Your task to perform on an android device: Open wifi settings Image 0: 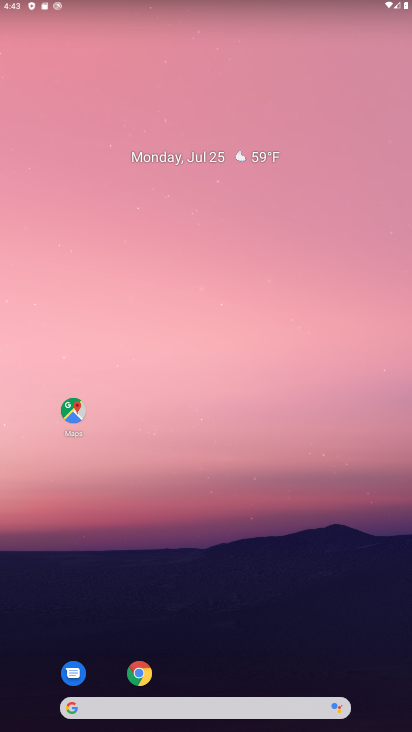
Step 0: drag from (291, 665) to (219, 125)
Your task to perform on an android device: Open wifi settings Image 1: 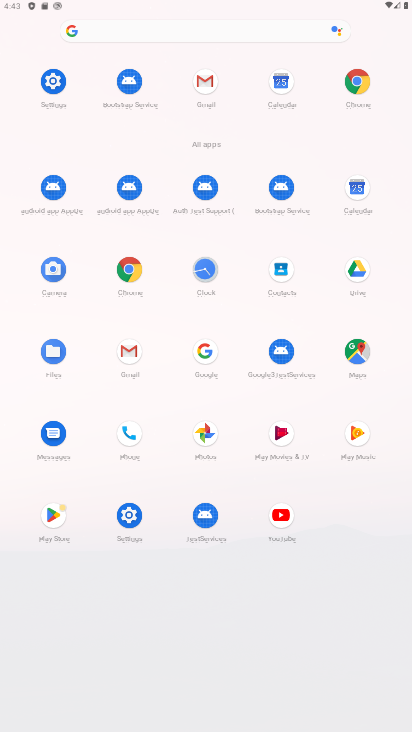
Step 1: click (116, 521)
Your task to perform on an android device: Open wifi settings Image 2: 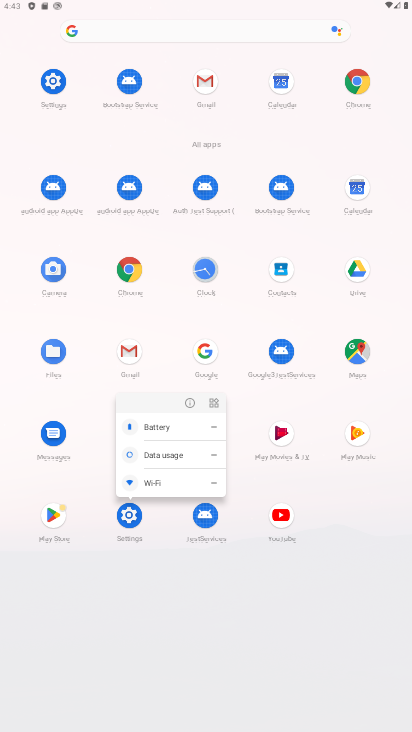
Step 2: click (137, 510)
Your task to perform on an android device: Open wifi settings Image 3: 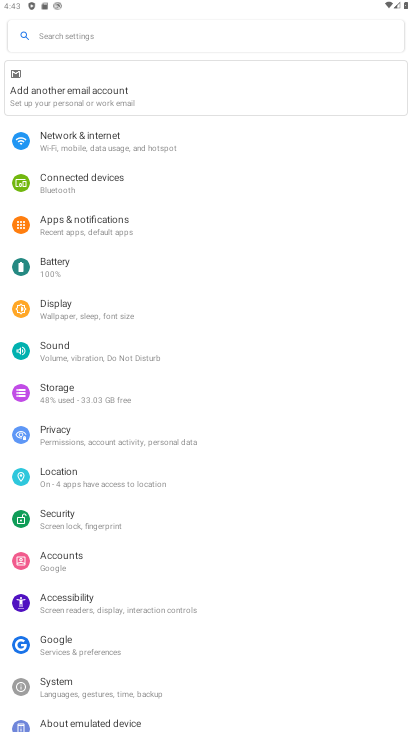
Step 3: click (74, 144)
Your task to perform on an android device: Open wifi settings Image 4: 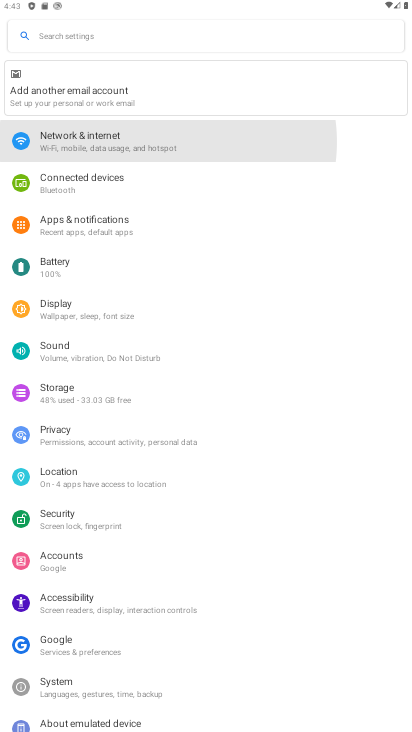
Step 4: click (84, 139)
Your task to perform on an android device: Open wifi settings Image 5: 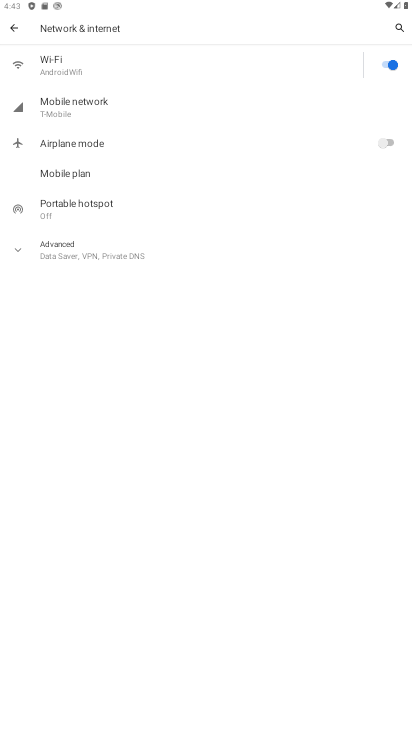
Step 5: task complete